Your task to perform on an android device: Open network settings Image 0: 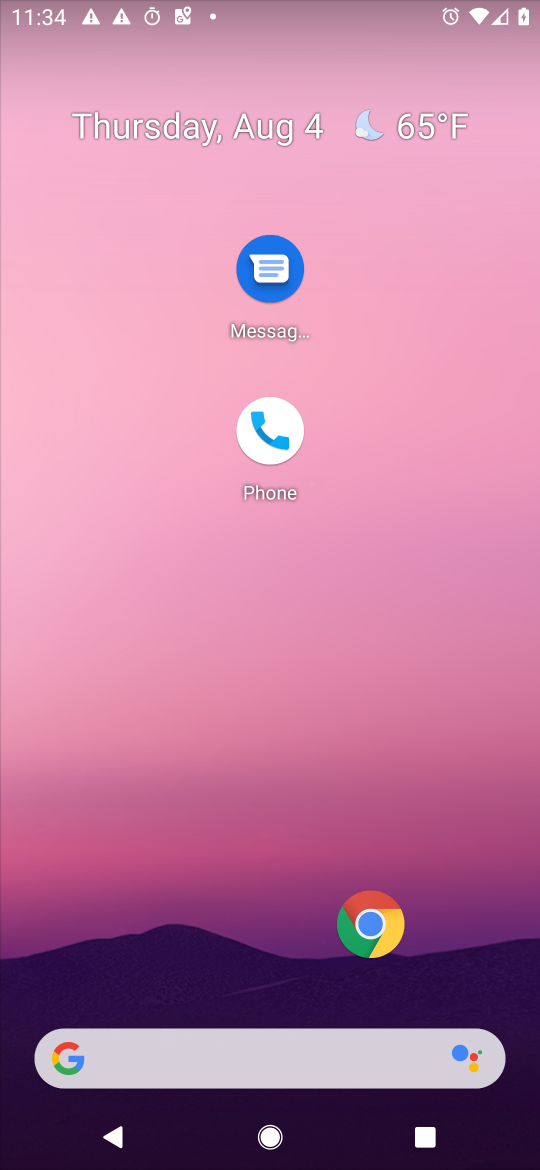
Step 0: drag from (261, 880) to (313, 248)
Your task to perform on an android device: Open network settings Image 1: 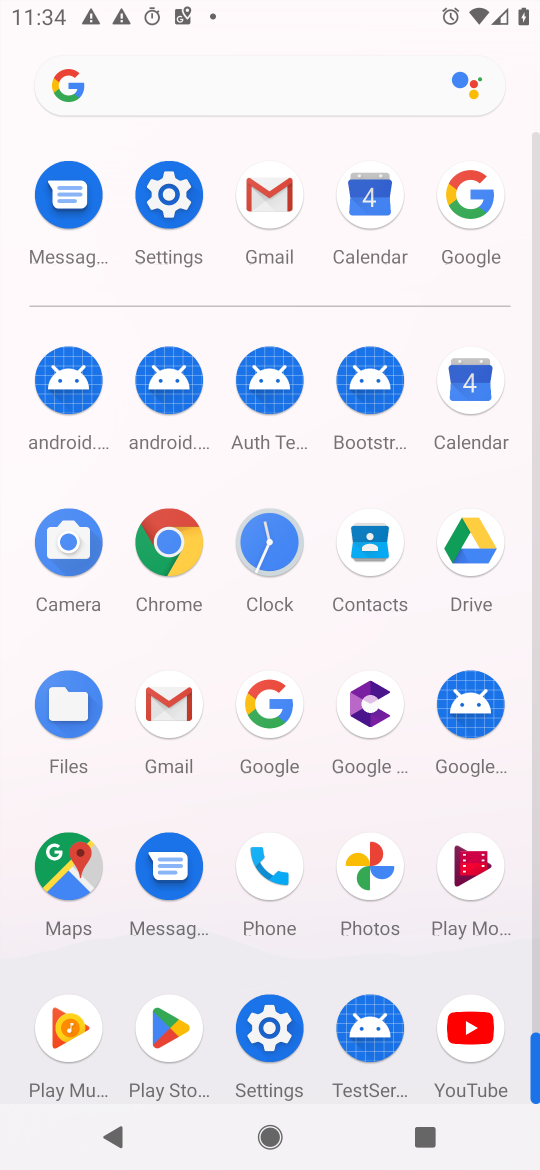
Step 1: drag from (306, 548) to (304, 235)
Your task to perform on an android device: Open network settings Image 2: 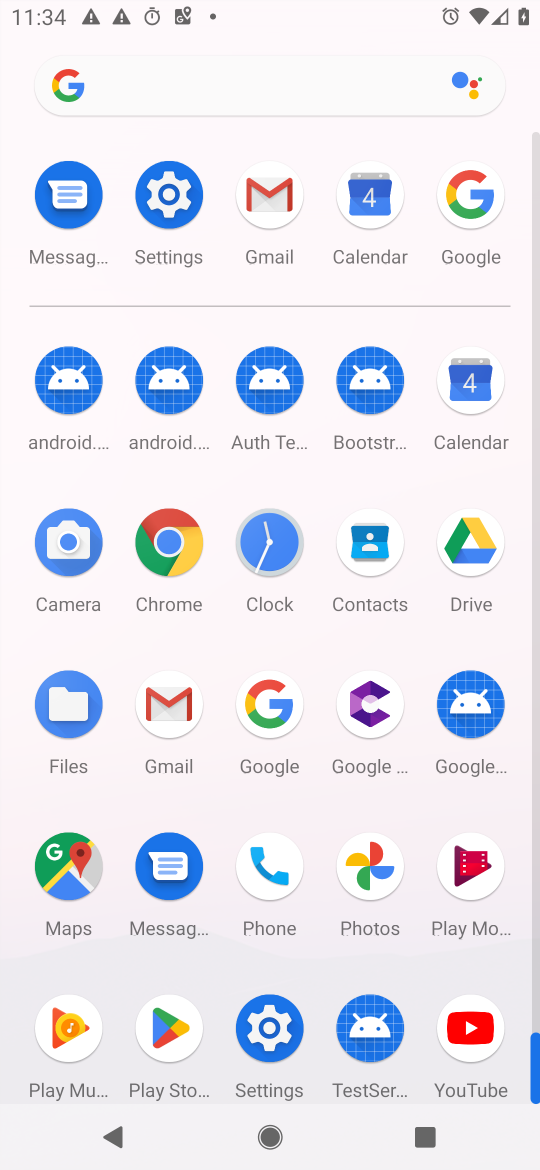
Step 2: click (167, 191)
Your task to perform on an android device: Open network settings Image 3: 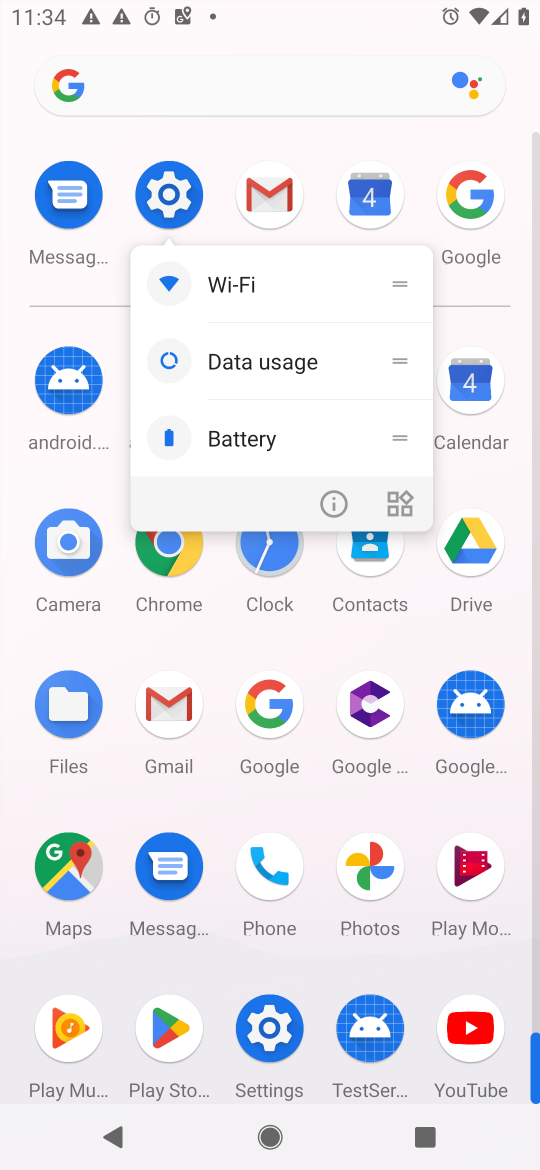
Step 3: click (327, 485)
Your task to perform on an android device: Open network settings Image 4: 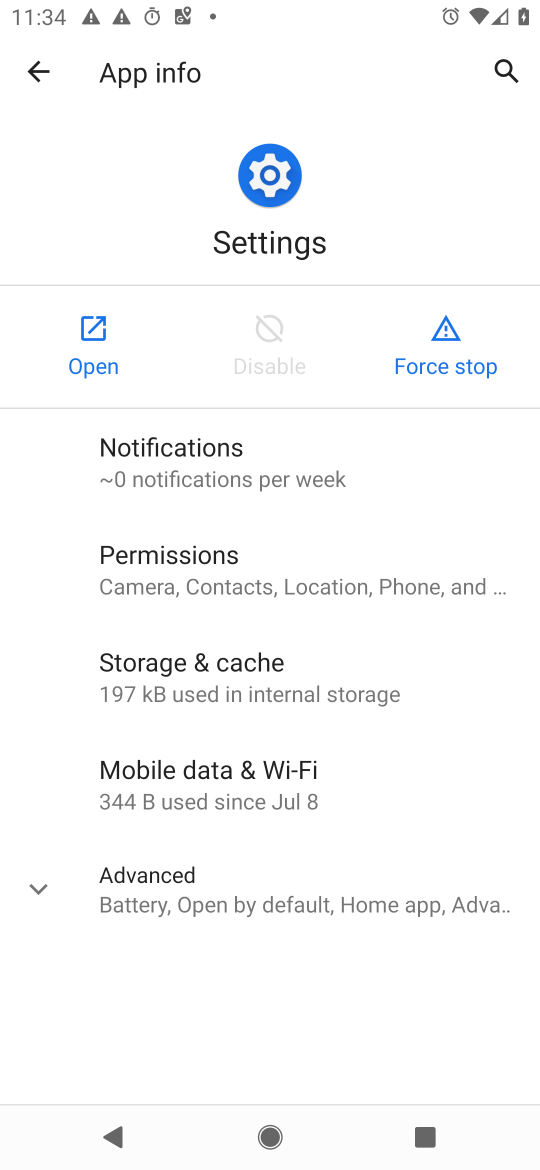
Step 4: click (77, 323)
Your task to perform on an android device: Open network settings Image 5: 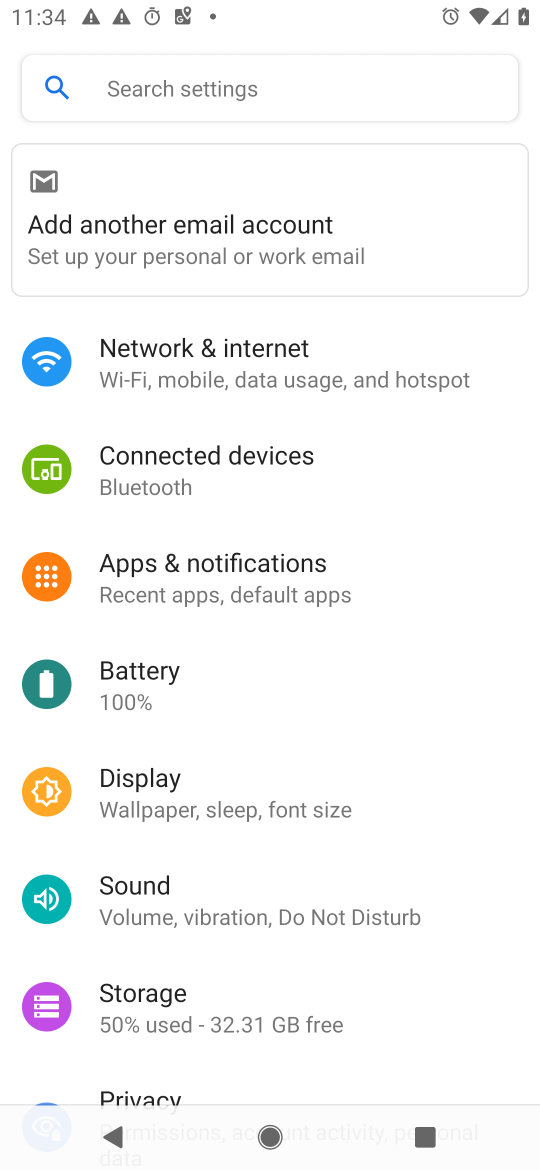
Step 5: click (152, 370)
Your task to perform on an android device: Open network settings Image 6: 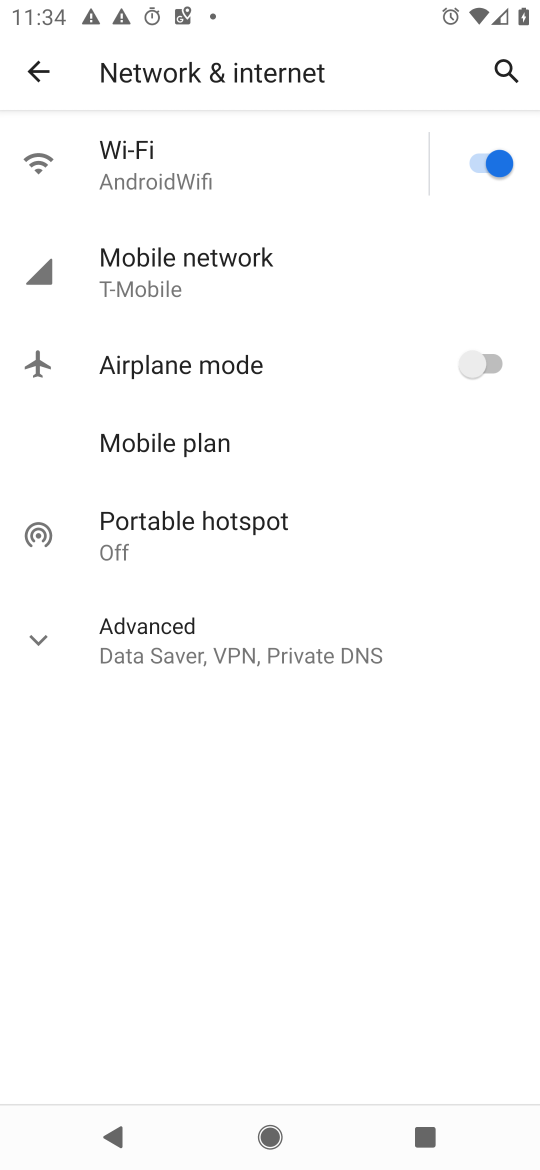
Step 6: task complete